Your task to perform on an android device: Open network settings Image 0: 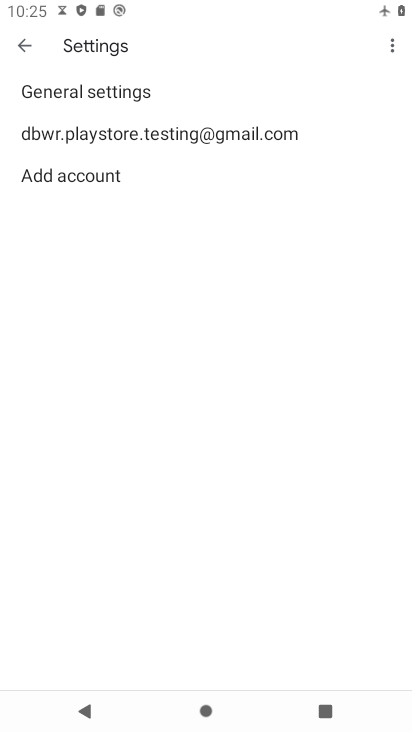
Step 0: press back button
Your task to perform on an android device: Open network settings Image 1: 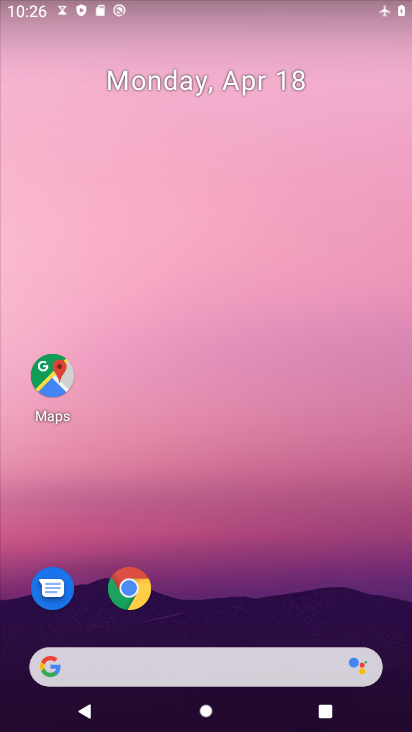
Step 1: drag from (269, 508) to (164, 18)
Your task to perform on an android device: Open network settings Image 2: 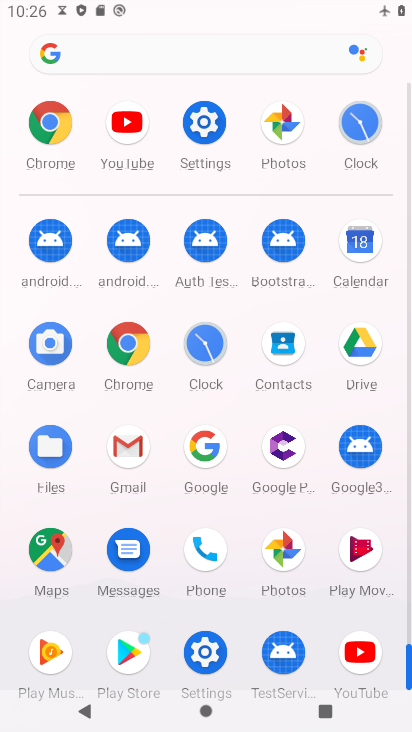
Step 2: drag from (9, 530) to (11, 296)
Your task to perform on an android device: Open network settings Image 3: 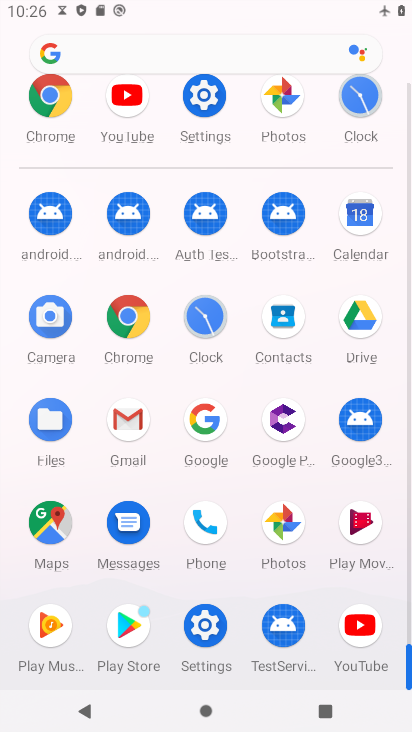
Step 3: click (206, 621)
Your task to perform on an android device: Open network settings Image 4: 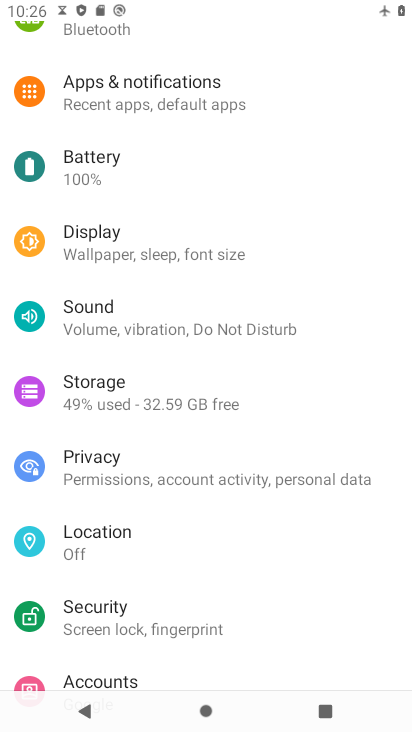
Step 4: drag from (203, 182) to (233, 431)
Your task to perform on an android device: Open network settings Image 5: 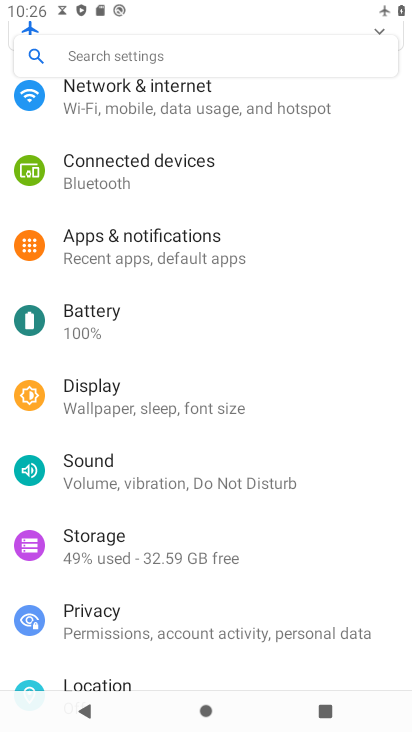
Step 5: click (178, 99)
Your task to perform on an android device: Open network settings Image 6: 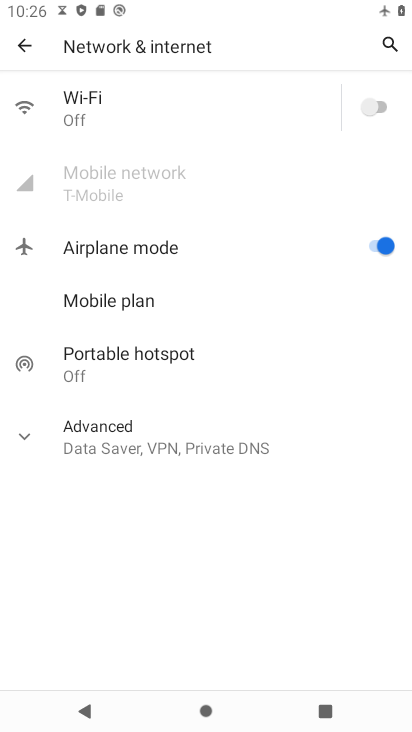
Step 6: task complete